Your task to perform on an android device: turn off data saver in the chrome app Image 0: 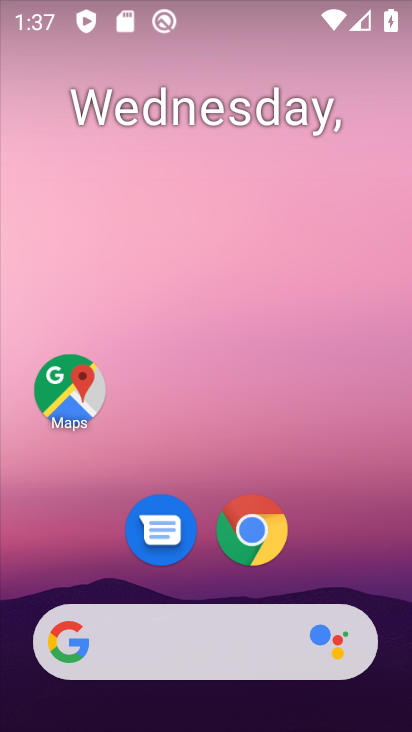
Step 0: click (228, 523)
Your task to perform on an android device: turn off data saver in the chrome app Image 1: 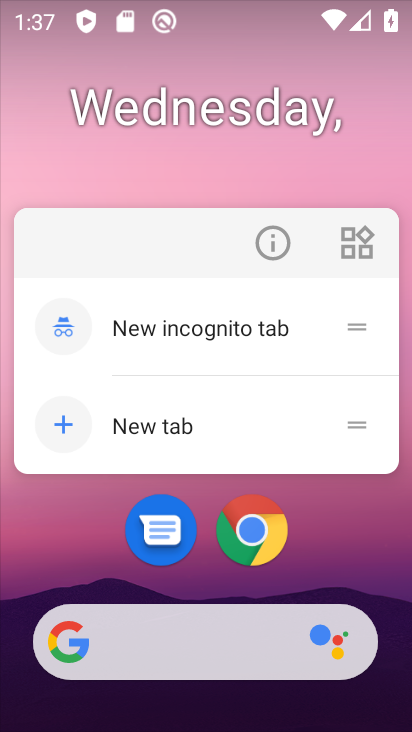
Step 1: click (252, 537)
Your task to perform on an android device: turn off data saver in the chrome app Image 2: 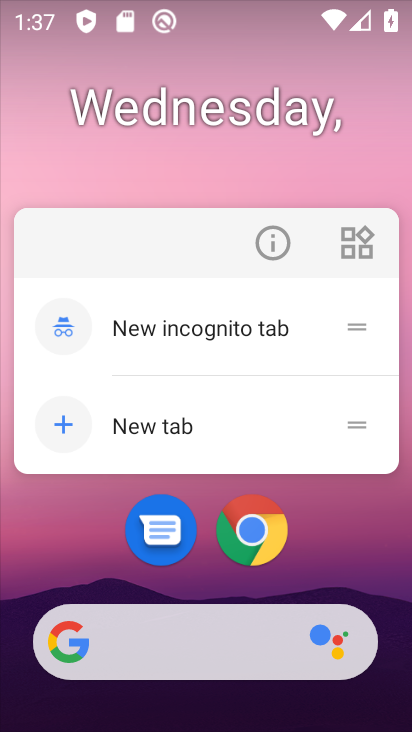
Step 2: click (257, 540)
Your task to perform on an android device: turn off data saver in the chrome app Image 3: 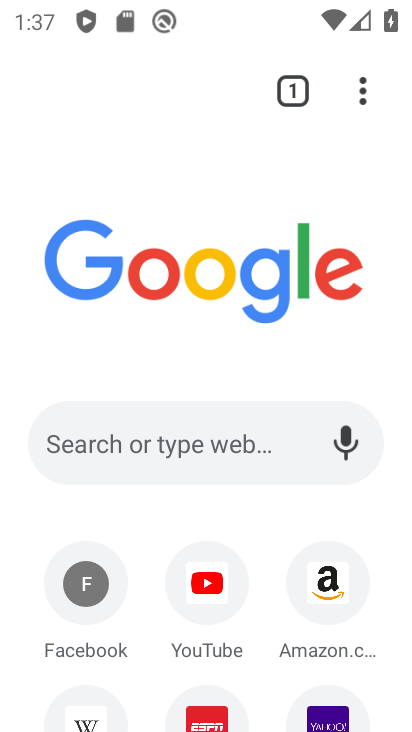
Step 3: drag from (377, 83) to (275, 590)
Your task to perform on an android device: turn off data saver in the chrome app Image 4: 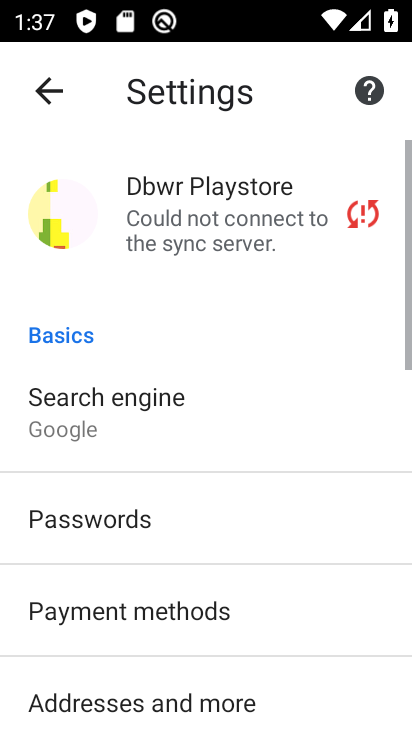
Step 4: drag from (241, 611) to (312, 271)
Your task to perform on an android device: turn off data saver in the chrome app Image 5: 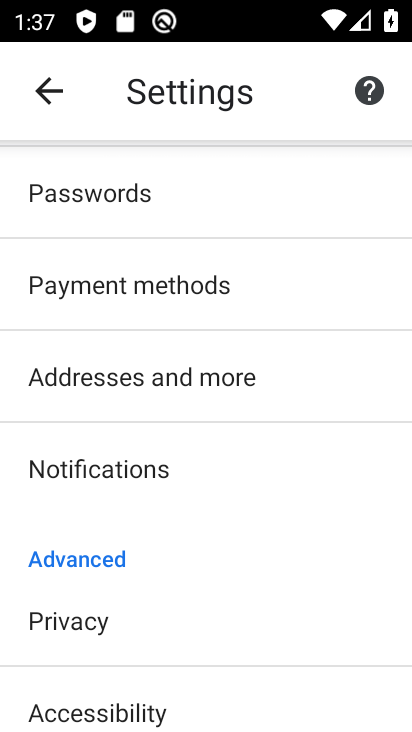
Step 5: drag from (202, 668) to (338, 267)
Your task to perform on an android device: turn off data saver in the chrome app Image 6: 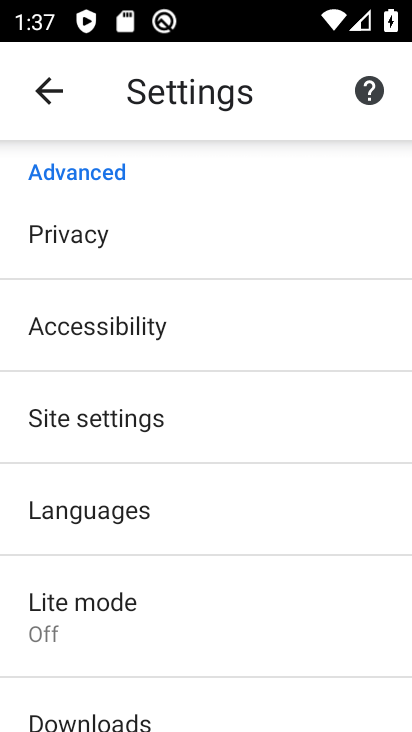
Step 6: click (166, 603)
Your task to perform on an android device: turn off data saver in the chrome app Image 7: 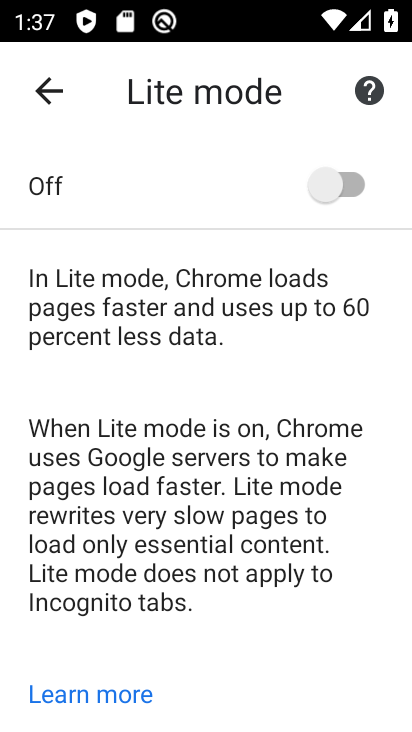
Step 7: task complete